Your task to perform on an android device: Open Google Chrome and open the bookmarks view Image 0: 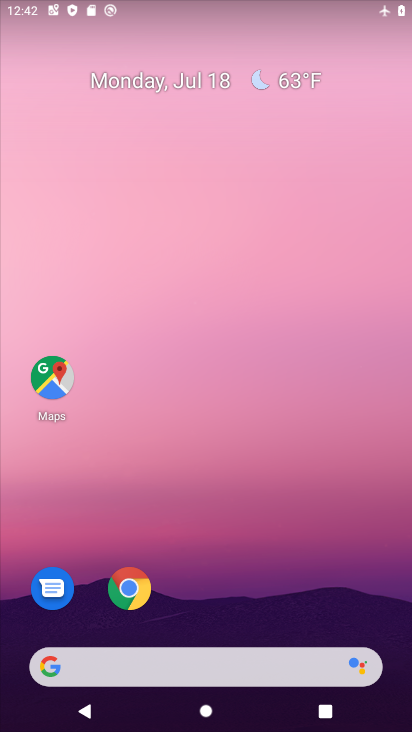
Step 0: drag from (239, 719) to (196, 142)
Your task to perform on an android device: Open Google Chrome and open the bookmarks view Image 1: 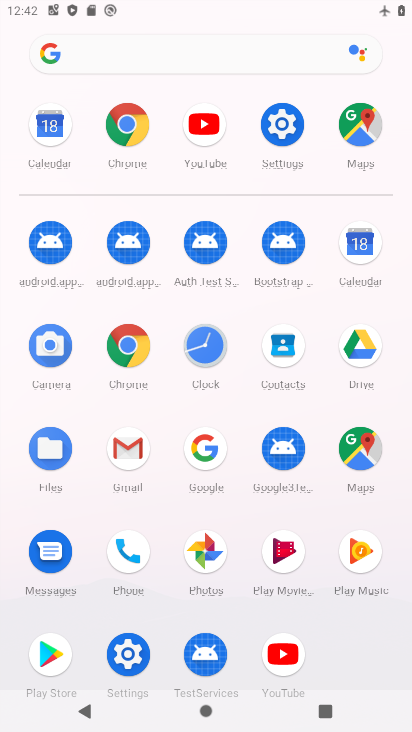
Step 1: click (130, 342)
Your task to perform on an android device: Open Google Chrome and open the bookmarks view Image 2: 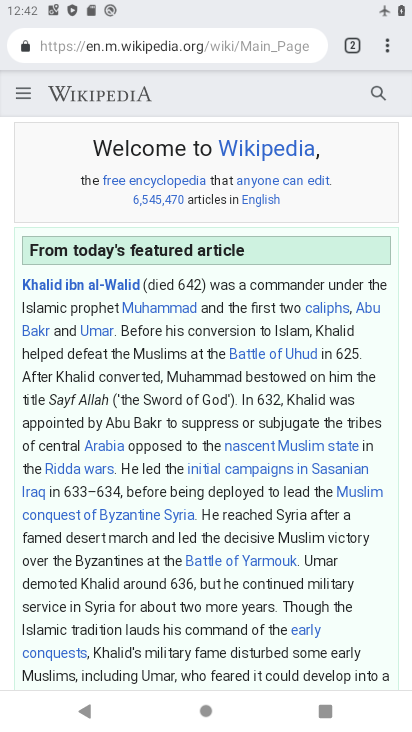
Step 2: click (389, 50)
Your task to perform on an android device: Open Google Chrome and open the bookmarks view Image 3: 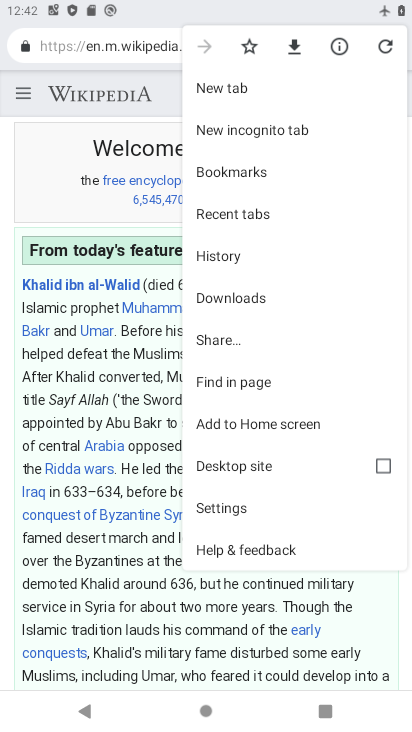
Step 3: click (242, 171)
Your task to perform on an android device: Open Google Chrome and open the bookmarks view Image 4: 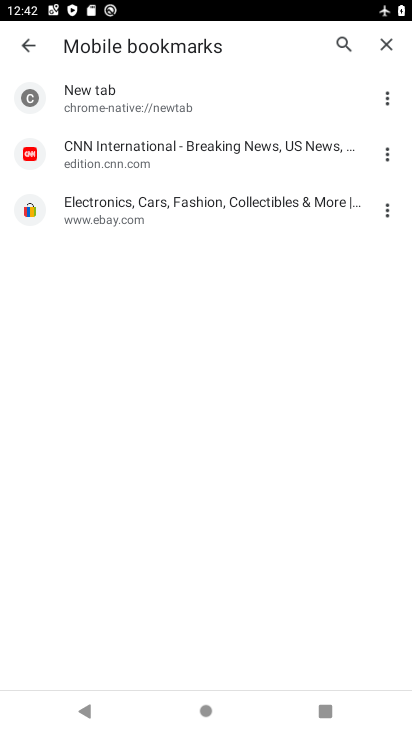
Step 4: task complete